Your task to perform on an android device: Set the phone to "Do not disturb". Image 0: 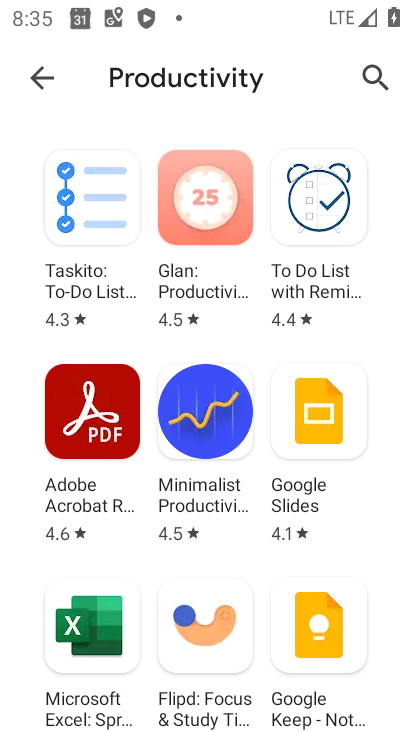
Step 0: press back button
Your task to perform on an android device: Set the phone to "Do not disturb". Image 1: 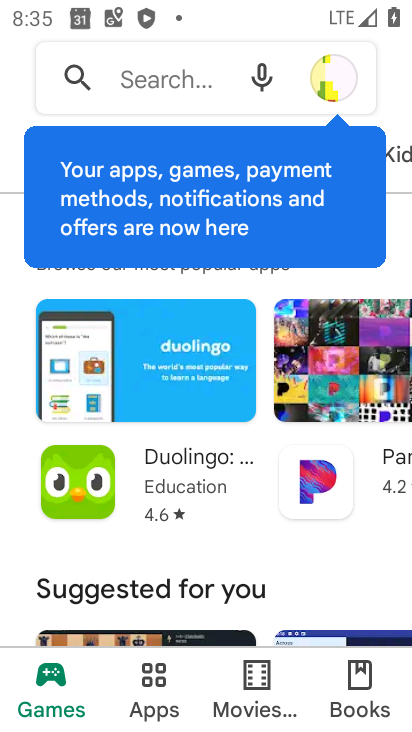
Step 1: press back button
Your task to perform on an android device: Set the phone to "Do not disturb". Image 2: 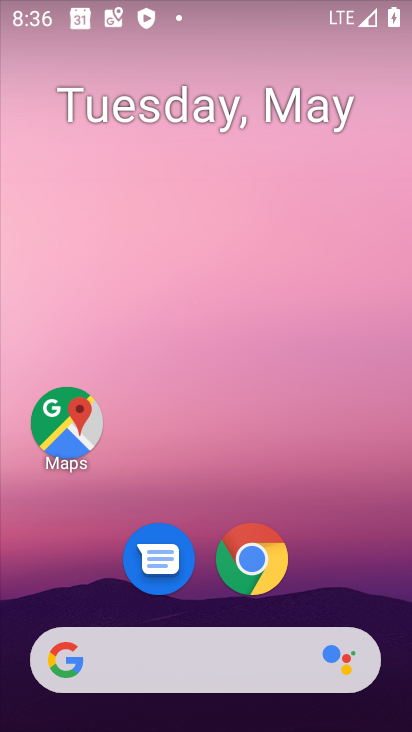
Step 2: drag from (158, 12) to (165, 591)
Your task to perform on an android device: Set the phone to "Do not disturb". Image 3: 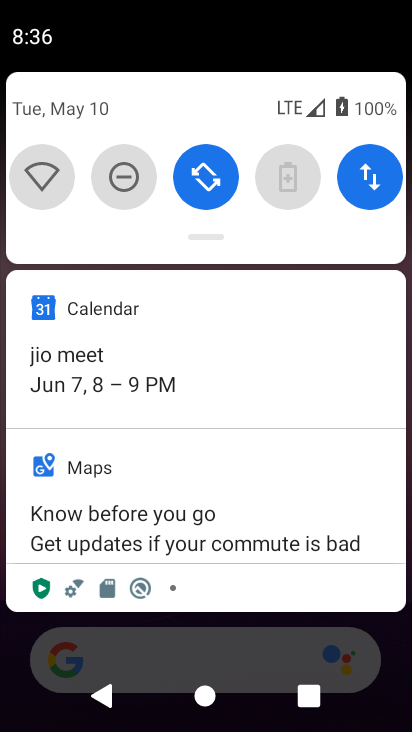
Step 3: click (124, 161)
Your task to perform on an android device: Set the phone to "Do not disturb". Image 4: 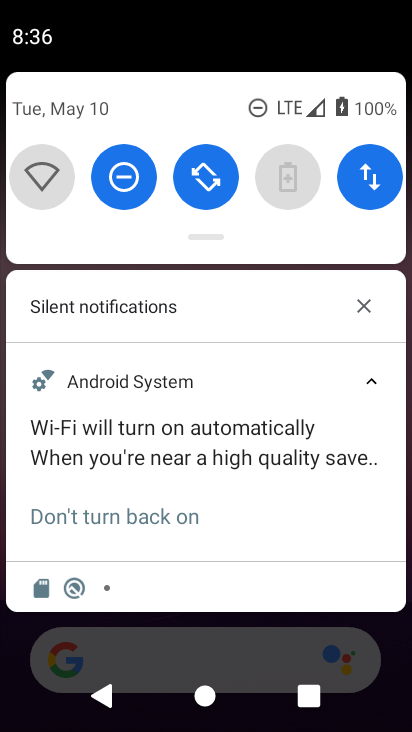
Step 4: task complete